Your task to perform on an android device: Open location settings Image 0: 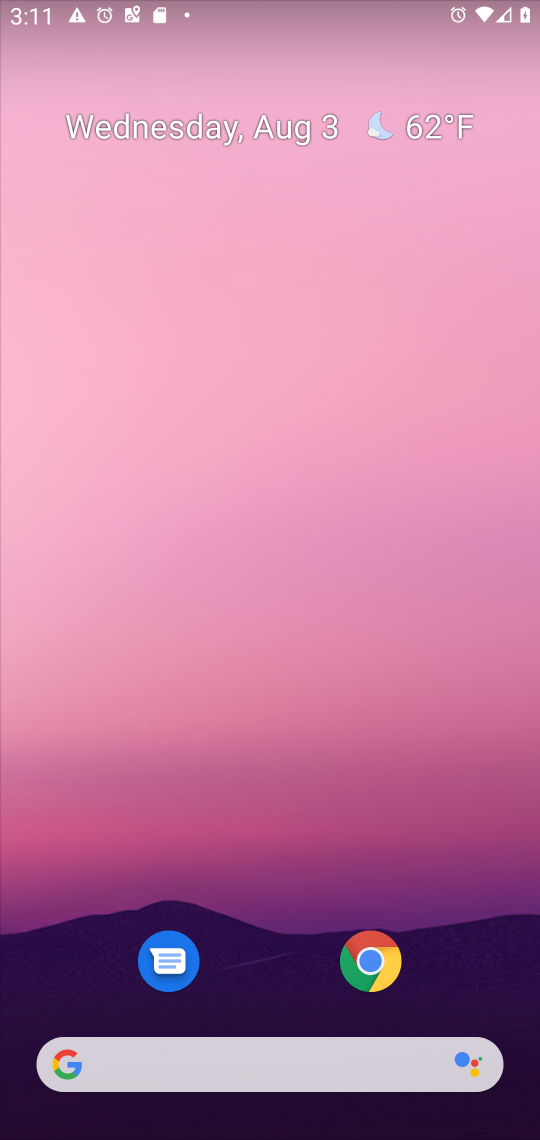
Step 0: drag from (298, 580) to (337, 57)
Your task to perform on an android device: Open location settings Image 1: 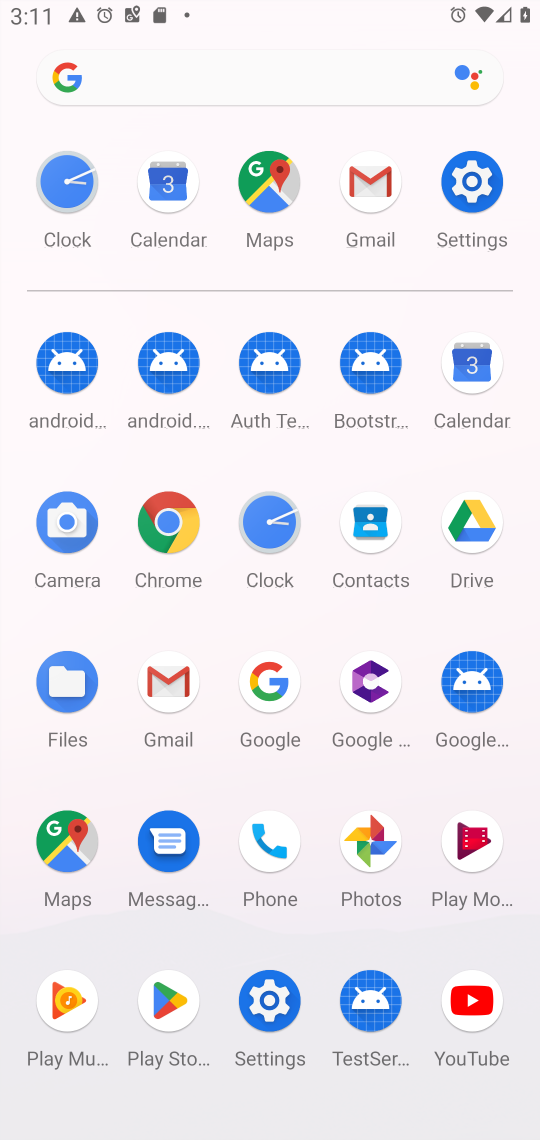
Step 1: click (466, 185)
Your task to perform on an android device: Open location settings Image 2: 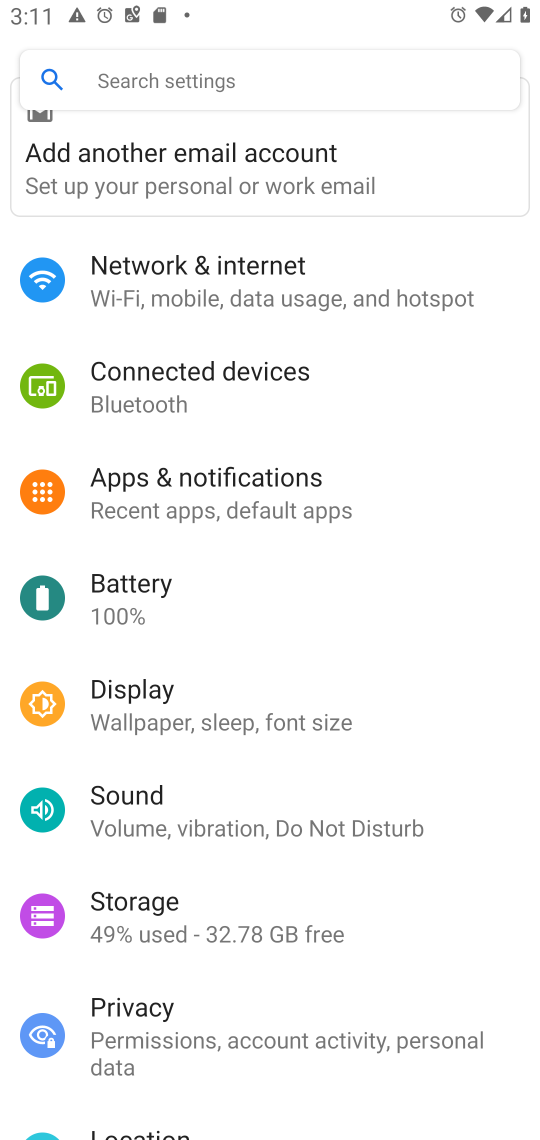
Step 2: drag from (360, 957) to (381, 679)
Your task to perform on an android device: Open location settings Image 3: 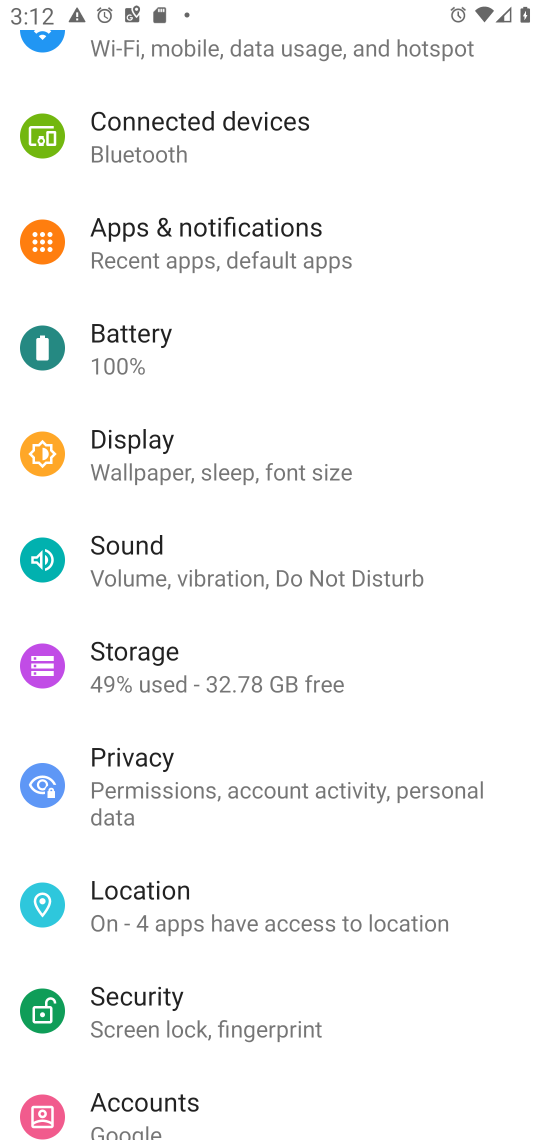
Step 3: click (136, 914)
Your task to perform on an android device: Open location settings Image 4: 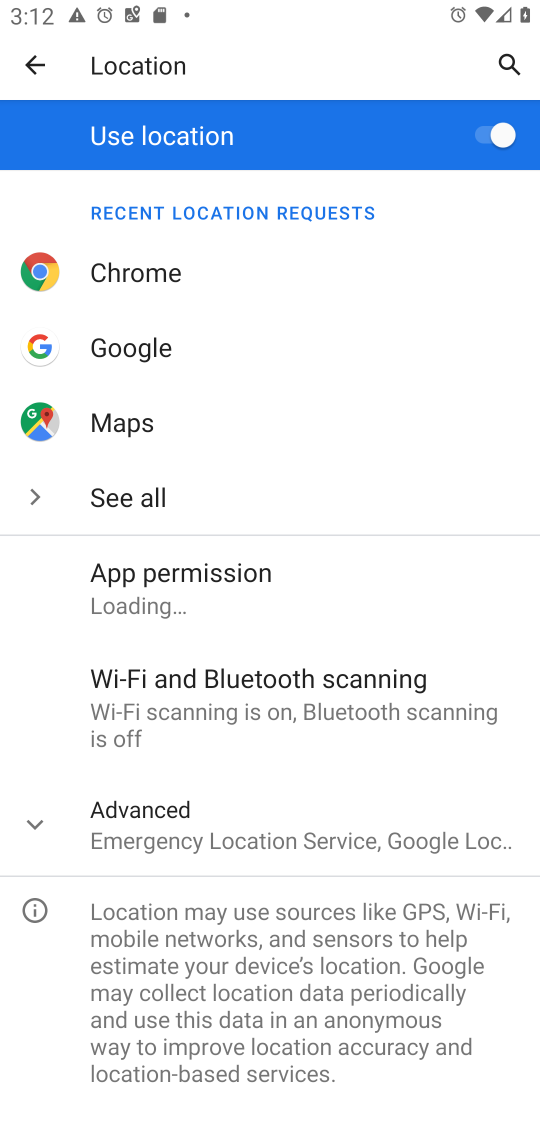
Step 4: task complete